Your task to perform on an android device: What's on my calendar tomorrow? Image 0: 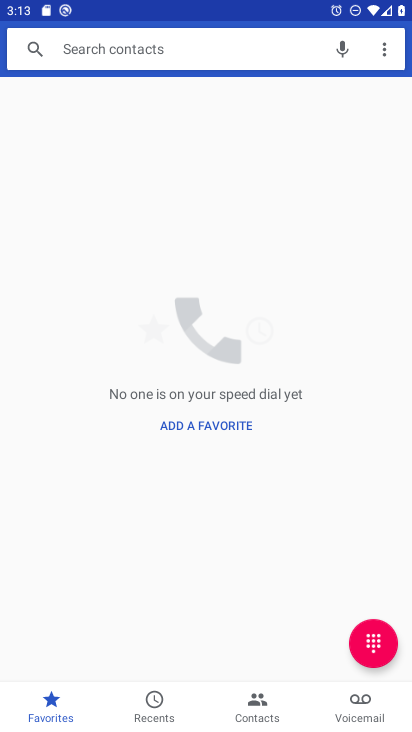
Step 0: press home button
Your task to perform on an android device: What's on my calendar tomorrow? Image 1: 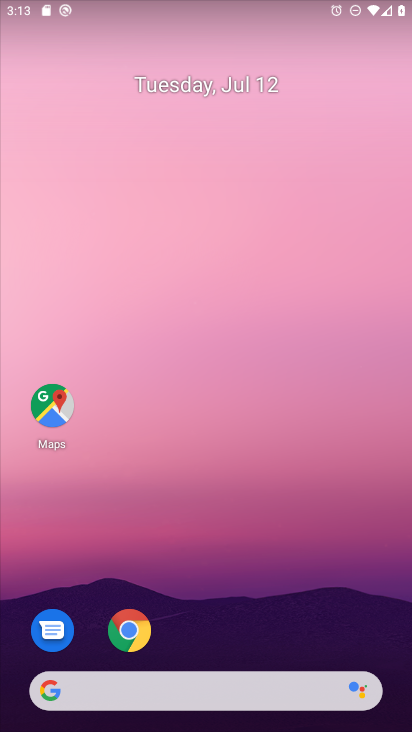
Step 1: drag from (205, 650) to (207, 122)
Your task to perform on an android device: What's on my calendar tomorrow? Image 2: 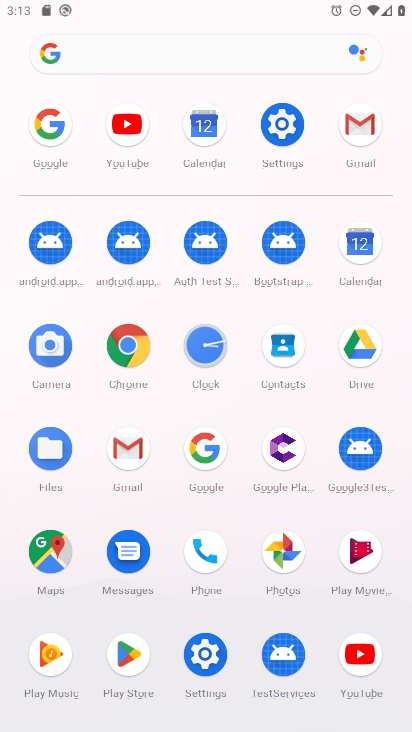
Step 2: click (194, 130)
Your task to perform on an android device: What's on my calendar tomorrow? Image 3: 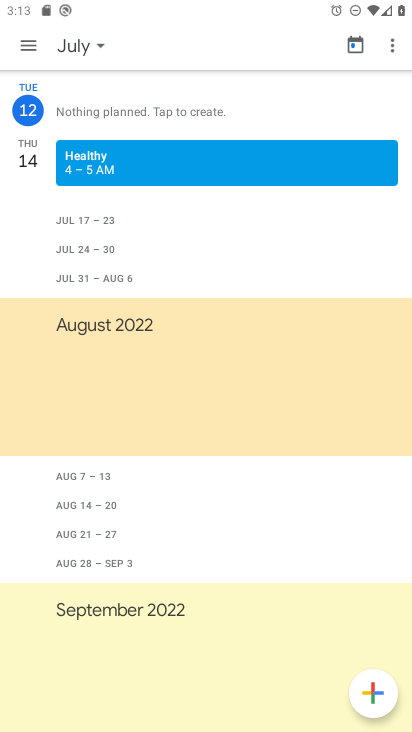
Step 3: click (98, 52)
Your task to perform on an android device: What's on my calendar tomorrow? Image 4: 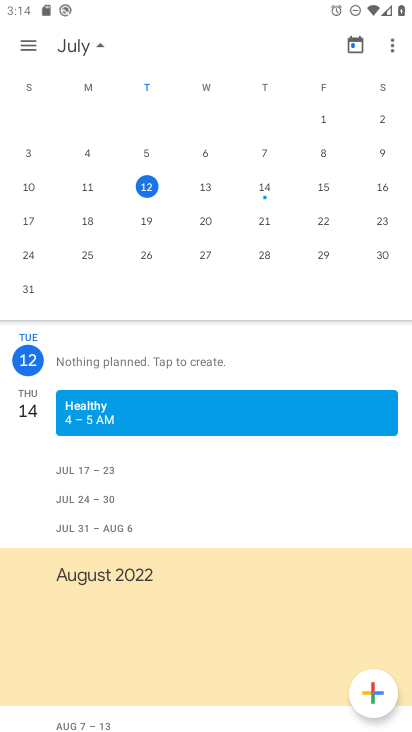
Step 4: task complete